Your task to perform on an android device: Clear all items from cart on newegg. Add "asus rog" to the cart on newegg Image 0: 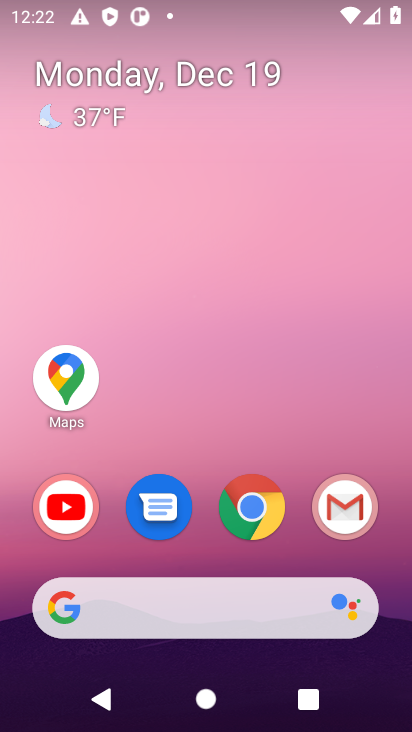
Step 0: click (244, 518)
Your task to perform on an android device: Clear all items from cart on newegg. Add "asus rog" to the cart on newegg Image 1: 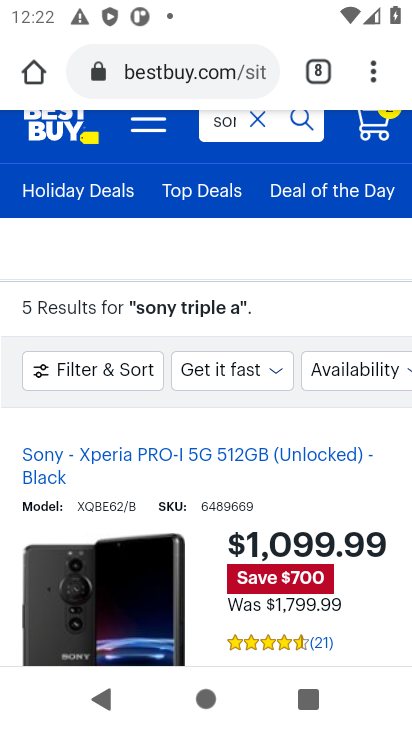
Step 1: click (165, 73)
Your task to perform on an android device: Clear all items from cart on newegg. Add "asus rog" to the cart on newegg Image 2: 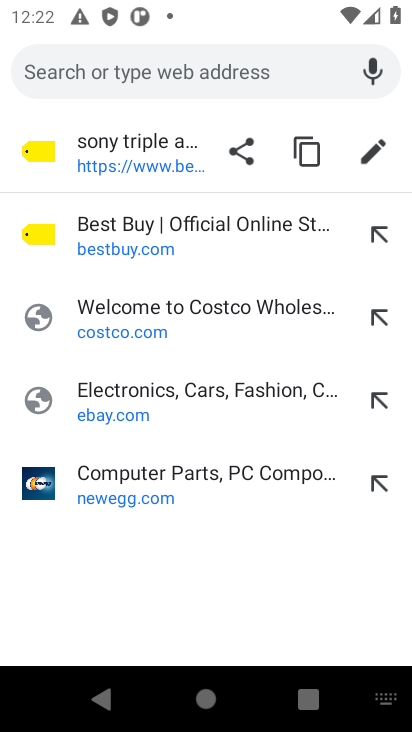
Step 2: click (108, 497)
Your task to perform on an android device: Clear all items from cart on newegg. Add "asus rog" to the cart on newegg Image 3: 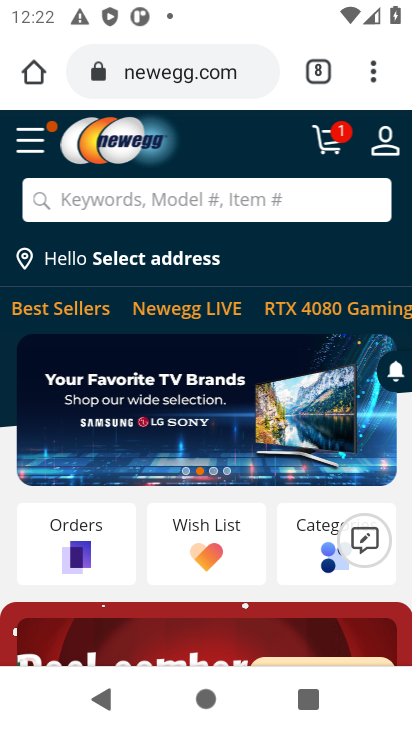
Step 3: click (327, 145)
Your task to perform on an android device: Clear all items from cart on newegg. Add "asus rog" to the cart on newegg Image 4: 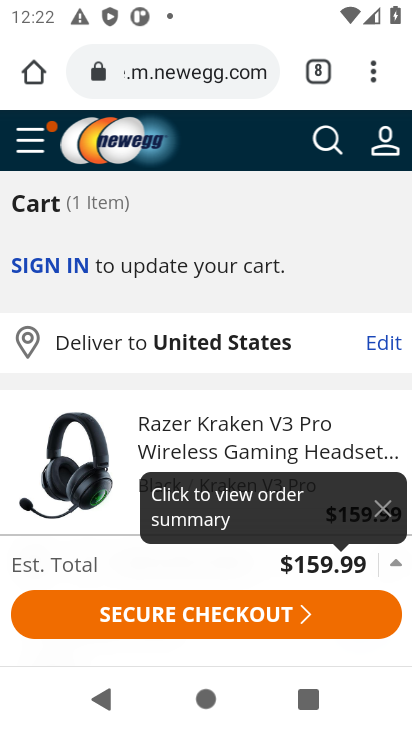
Step 4: drag from (104, 476) to (119, 275)
Your task to perform on an android device: Clear all items from cart on newegg. Add "asus rog" to the cart on newegg Image 5: 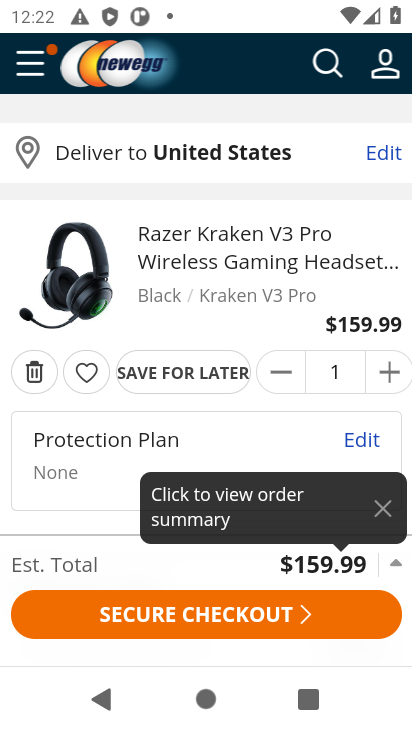
Step 5: click (35, 371)
Your task to perform on an android device: Clear all items from cart on newegg. Add "asus rog" to the cart on newegg Image 6: 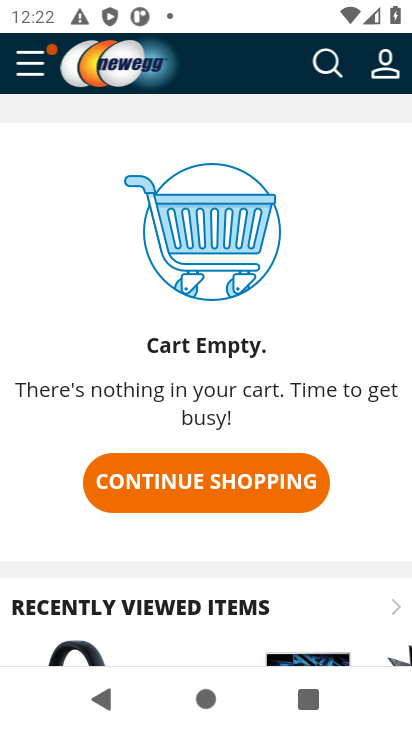
Step 6: click (323, 77)
Your task to perform on an android device: Clear all items from cart on newegg. Add "asus rog" to the cart on newegg Image 7: 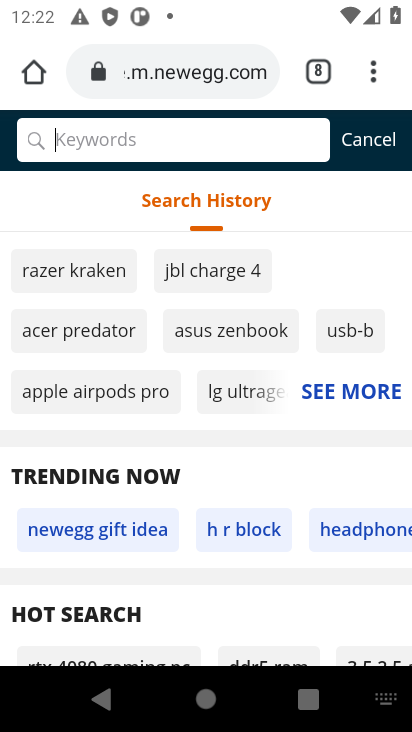
Step 7: type "asus rog"
Your task to perform on an android device: Clear all items from cart on newegg. Add "asus rog" to the cart on newegg Image 8: 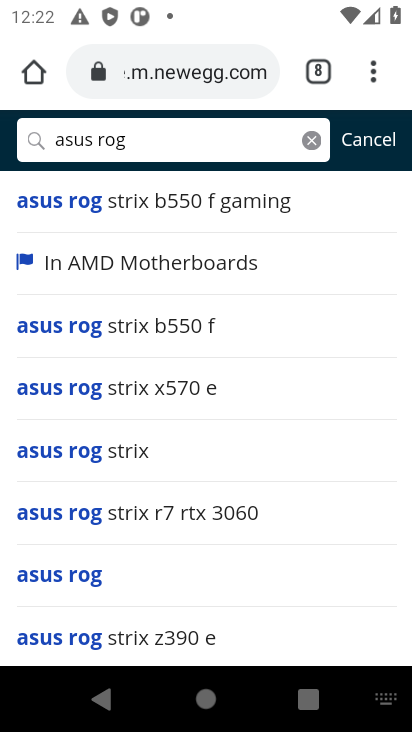
Step 8: click (52, 575)
Your task to perform on an android device: Clear all items from cart on newegg. Add "asus rog" to the cart on newegg Image 9: 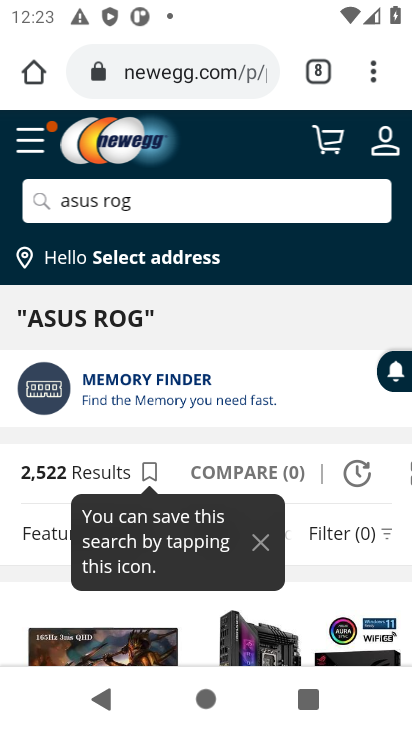
Step 9: drag from (319, 563) to (323, 240)
Your task to perform on an android device: Clear all items from cart on newegg. Add "asus rog" to the cart on newegg Image 10: 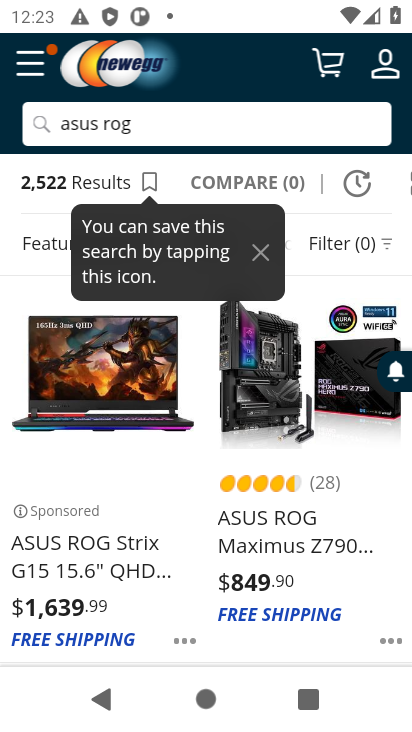
Step 10: drag from (158, 549) to (189, 351)
Your task to perform on an android device: Clear all items from cart on newegg. Add "asus rog" to the cart on newegg Image 11: 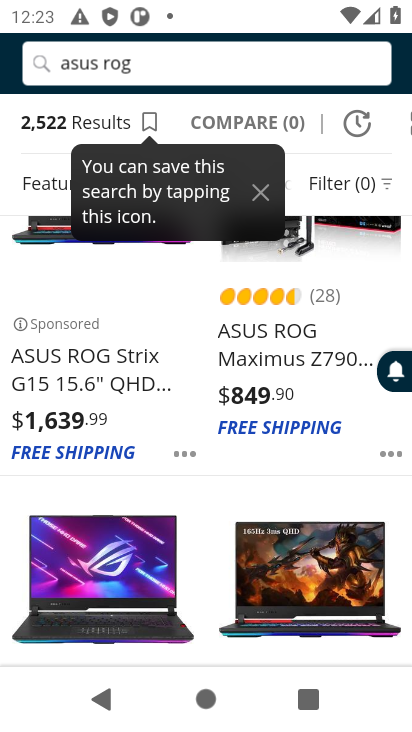
Step 11: click (98, 362)
Your task to perform on an android device: Clear all items from cart on newegg. Add "asus rog" to the cart on newegg Image 12: 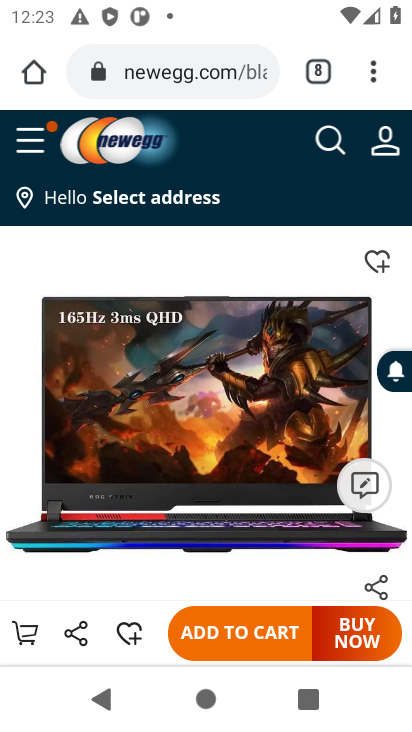
Step 12: click (240, 636)
Your task to perform on an android device: Clear all items from cart on newegg. Add "asus rog" to the cart on newegg Image 13: 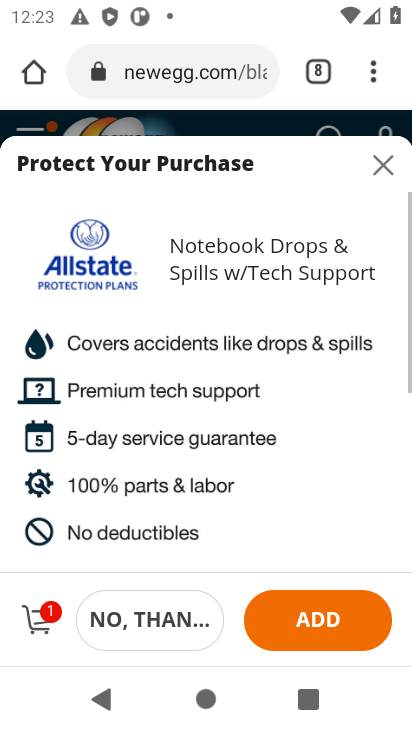
Step 13: task complete